Your task to perform on an android device: turn off notifications settings in the gmail app Image 0: 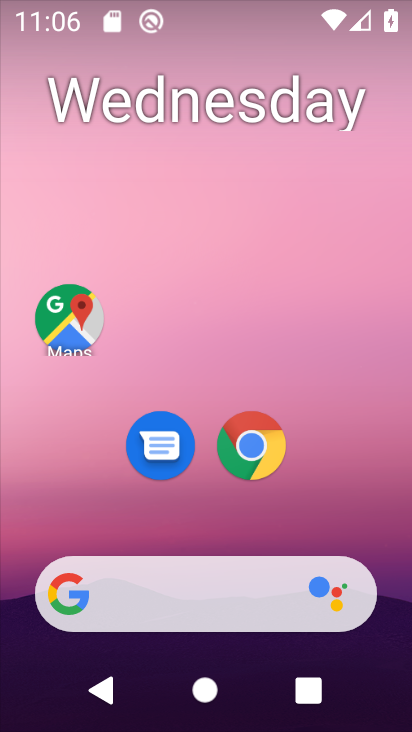
Step 0: drag from (288, 520) to (210, 104)
Your task to perform on an android device: turn off notifications settings in the gmail app Image 1: 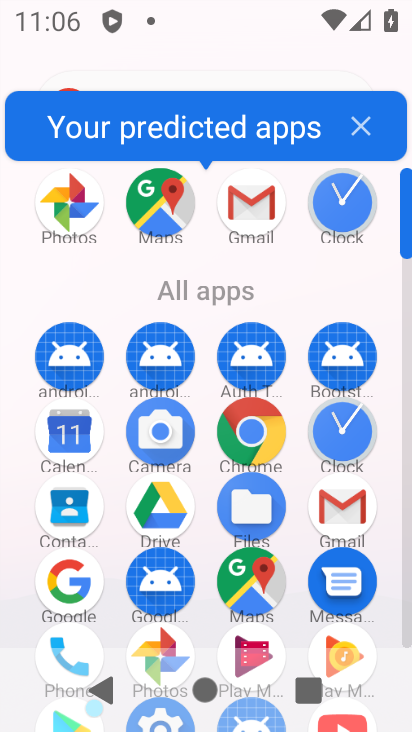
Step 1: click (248, 227)
Your task to perform on an android device: turn off notifications settings in the gmail app Image 2: 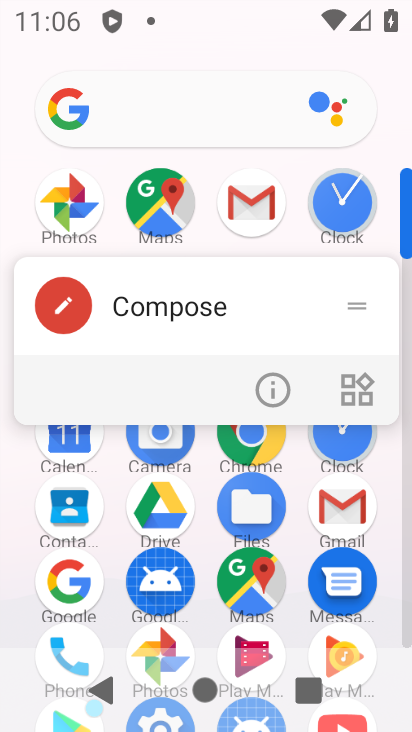
Step 2: click (258, 213)
Your task to perform on an android device: turn off notifications settings in the gmail app Image 3: 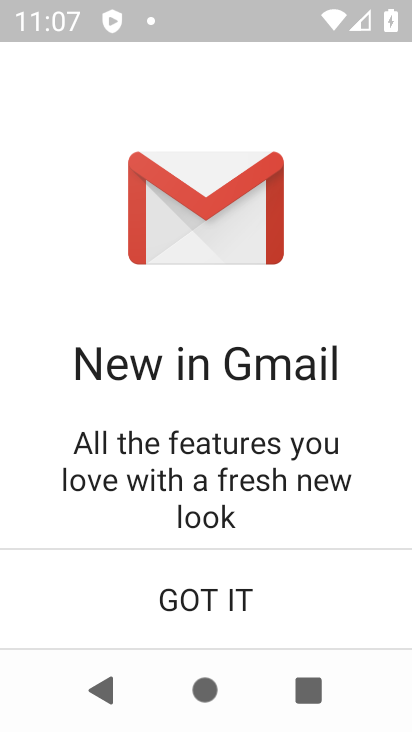
Step 3: click (162, 605)
Your task to perform on an android device: turn off notifications settings in the gmail app Image 4: 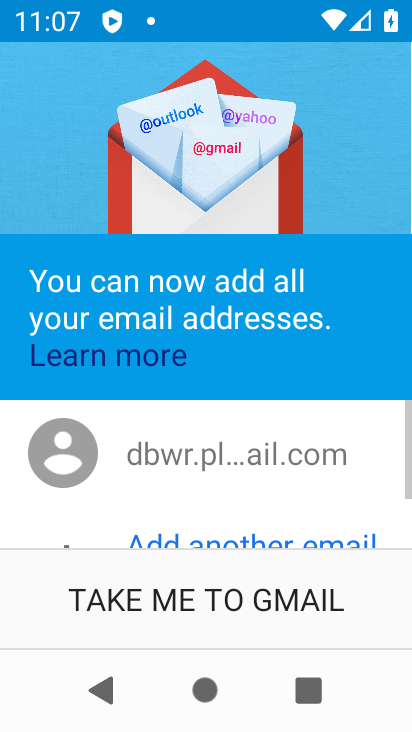
Step 4: click (162, 605)
Your task to perform on an android device: turn off notifications settings in the gmail app Image 5: 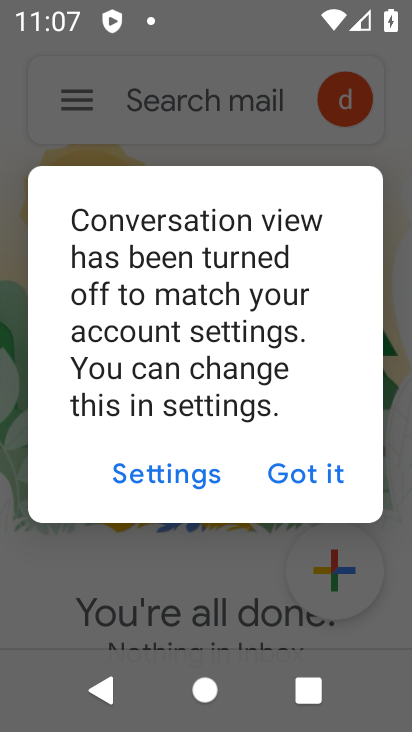
Step 5: click (323, 482)
Your task to perform on an android device: turn off notifications settings in the gmail app Image 6: 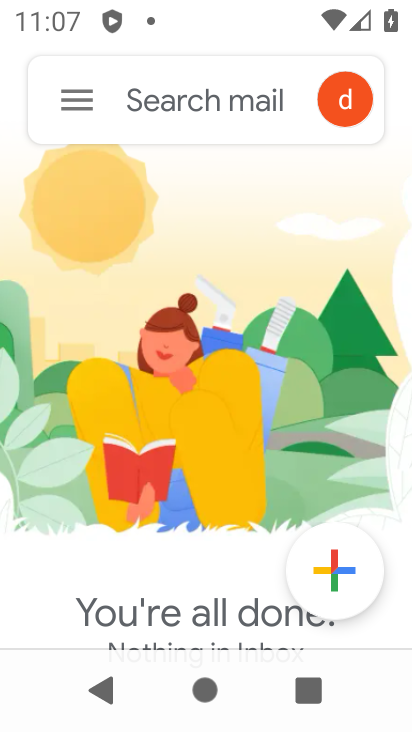
Step 6: click (75, 100)
Your task to perform on an android device: turn off notifications settings in the gmail app Image 7: 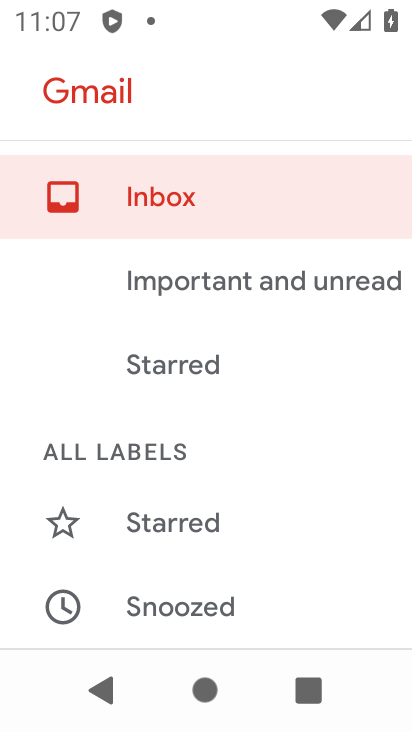
Step 7: drag from (303, 542) to (238, 93)
Your task to perform on an android device: turn off notifications settings in the gmail app Image 8: 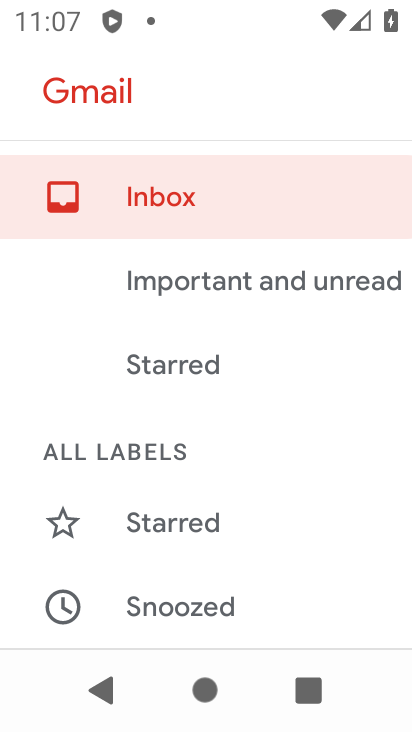
Step 8: drag from (202, 528) to (201, 272)
Your task to perform on an android device: turn off notifications settings in the gmail app Image 9: 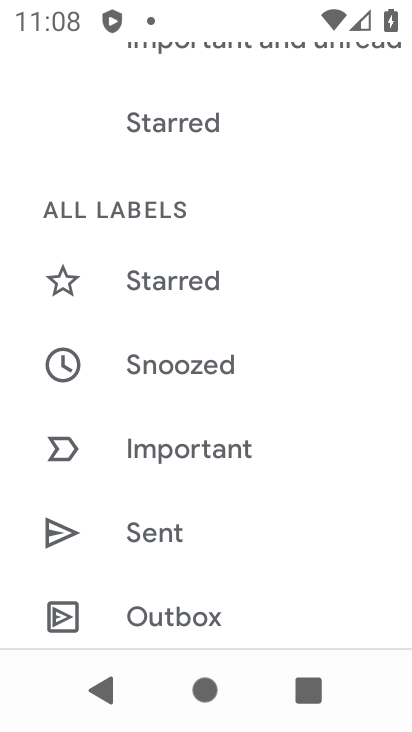
Step 9: drag from (226, 549) to (291, 177)
Your task to perform on an android device: turn off notifications settings in the gmail app Image 10: 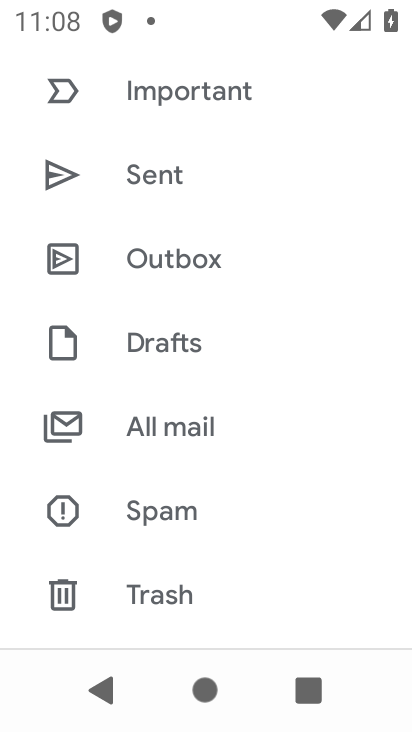
Step 10: drag from (226, 482) to (304, 150)
Your task to perform on an android device: turn off notifications settings in the gmail app Image 11: 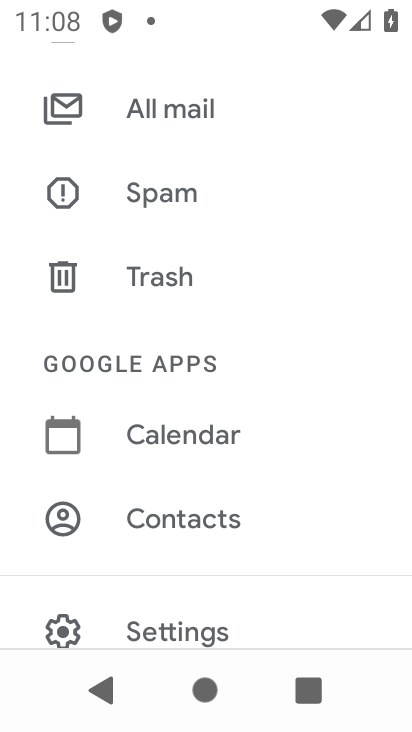
Step 11: click (153, 624)
Your task to perform on an android device: turn off notifications settings in the gmail app Image 12: 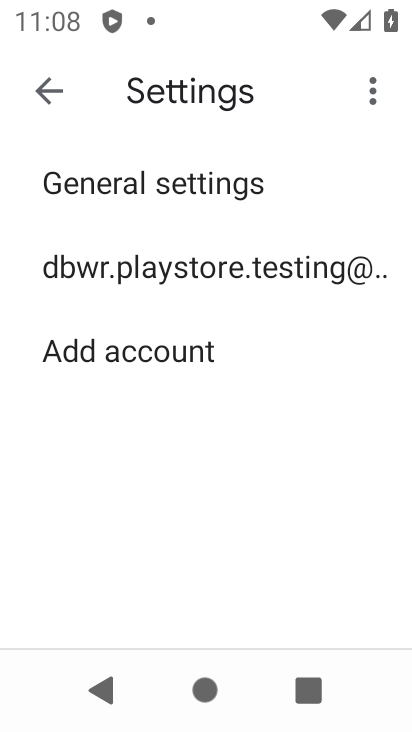
Step 12: click (180, 280)
Your task to perform on an android device: turn off notifications settings in the gmail app Image 13: 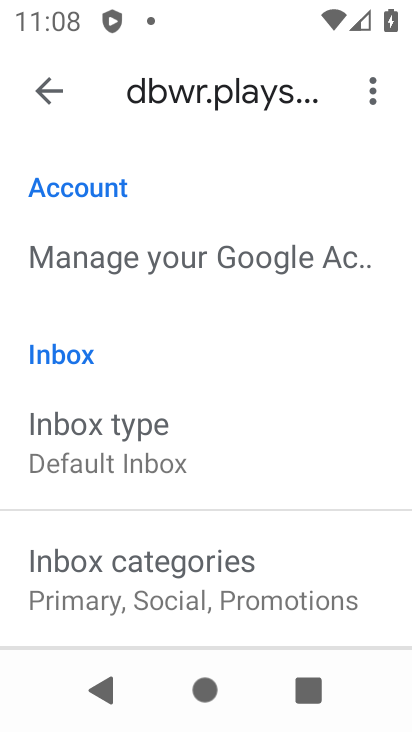
Step 13: drag from (144, 542) to (106, 0)
Your task to perform on an android device: turn off notifications settings in the gmail app Image 14: 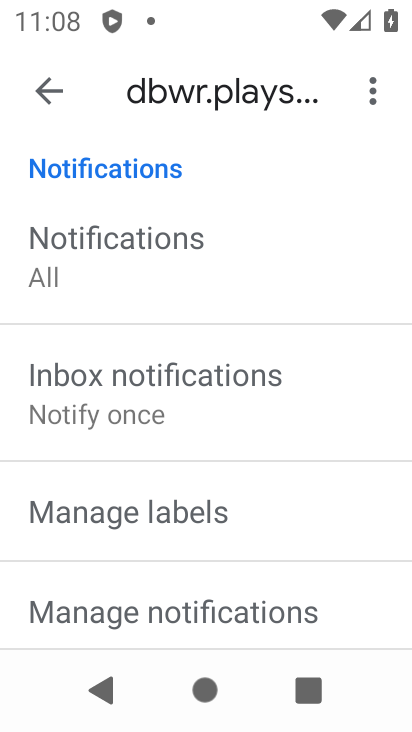
Step 14: click (134, 254)
Your task to perform on an android device: turn off notifications settings in the gmail app Image 15: 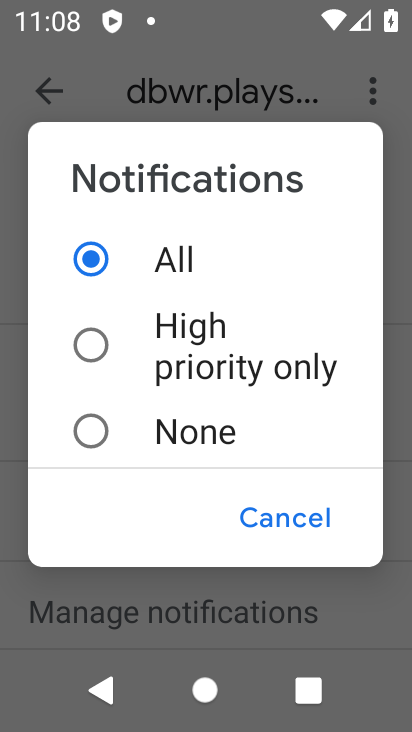
Step 15: click (96, 427)
Your task to perform on an android device: turn off notifications settings in the gmail app Image 16: 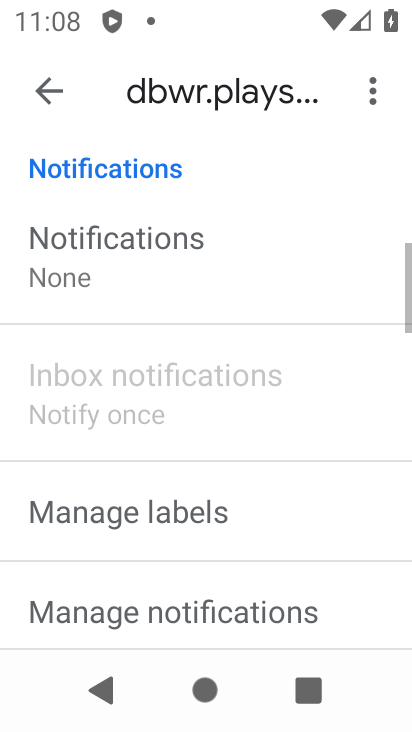
Step 16: task complete